Your task to perform on an android device: turn off location history Image 0: 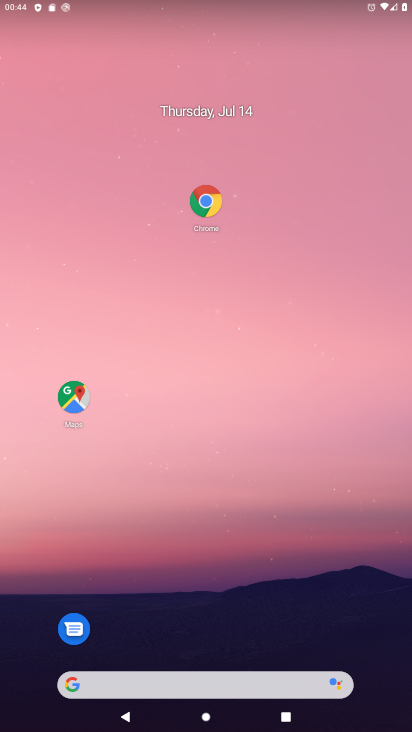
Step 0: drag from (219, 623) to (192, 6)
Your task to perform on an android device: turn off location history Image 1: 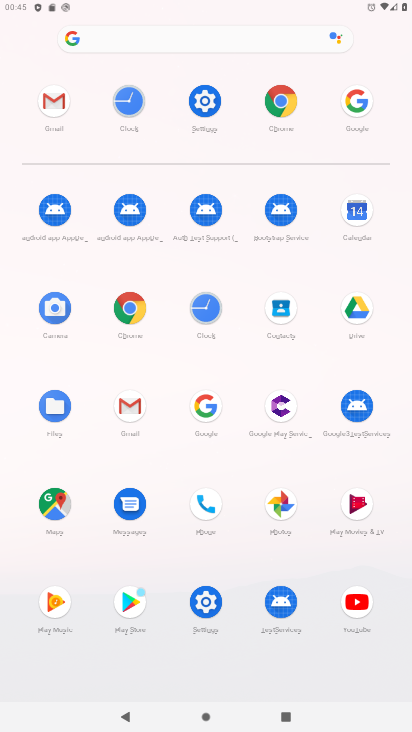
Step 1: click (204, 119)
Your task to perform on an android device: turn off location history Image 2: 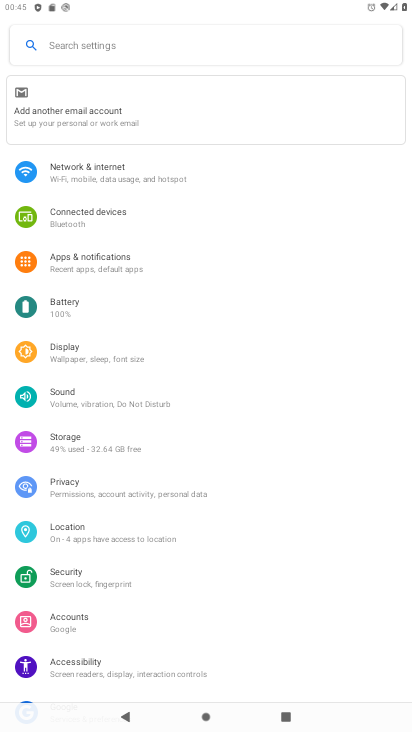
Step 2: click (48, 522)
Your task to perform on an android device: turn off location history Image 3: 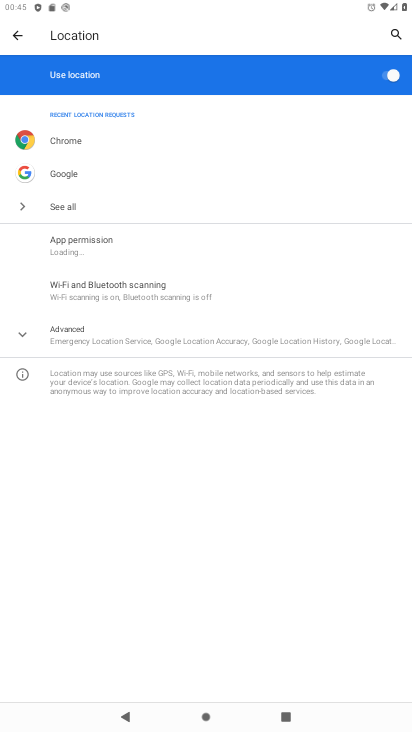
Step 3: click (60, 340)
Your task to perform on an android device: turn off location history Image 4: 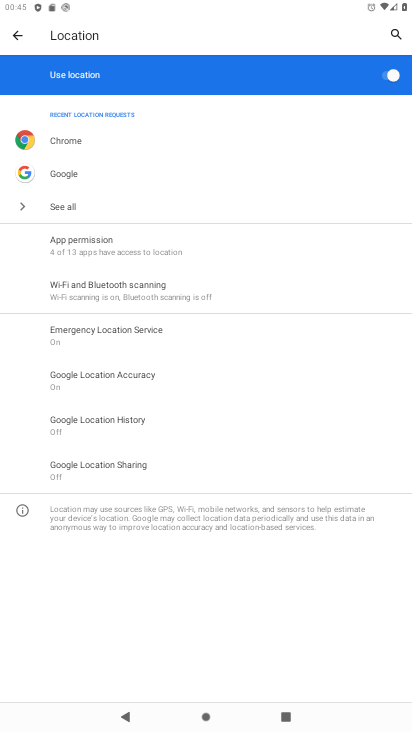
Step 4: click (95, 417)
Your task to perform on an android device: turn off location history Image 5: 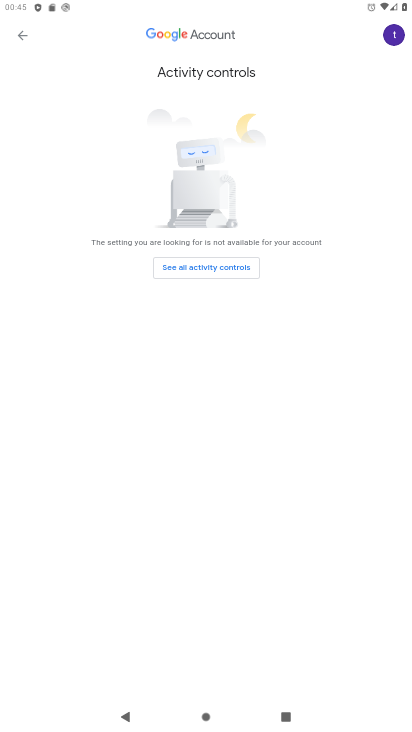
Step 5: click (185, 272)
Your task to perform on an android device: turn off location history Image 6: 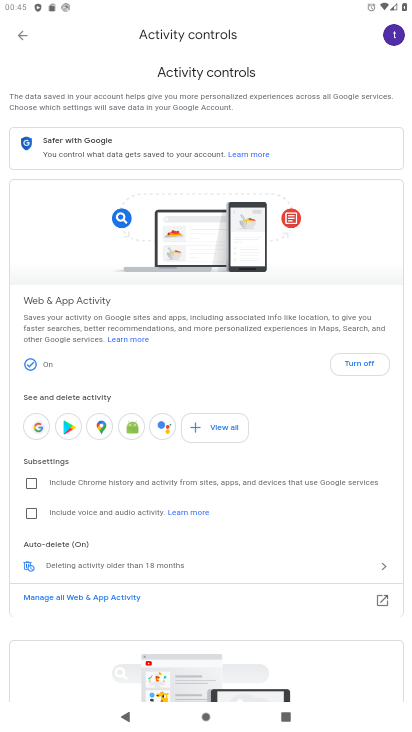
Step 6: click (350, 359)
Your task to perform on an android device: turn off location history Image 7: 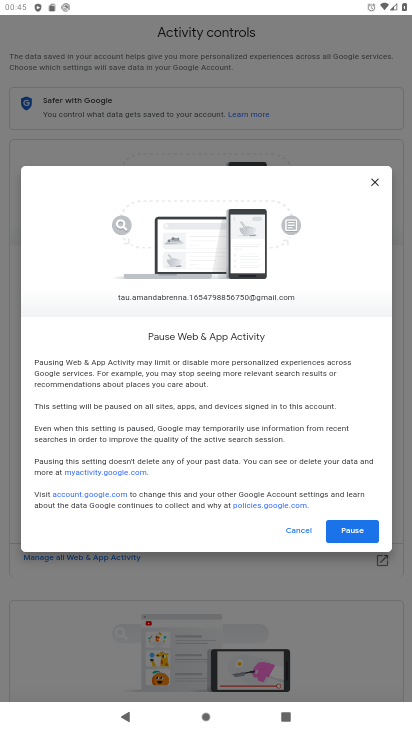
Step 7: click (361, 526)
Your task to perform on an android device: turn off location history Image 8: 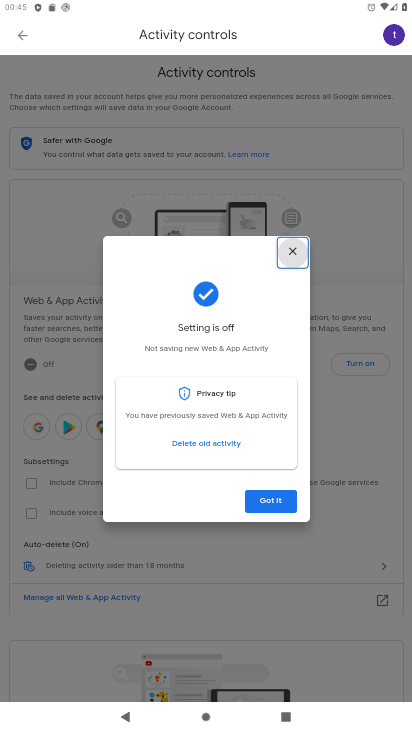
Step 8: task complete